Your task to perform on an android device: What's on my calendar today? Image 0: 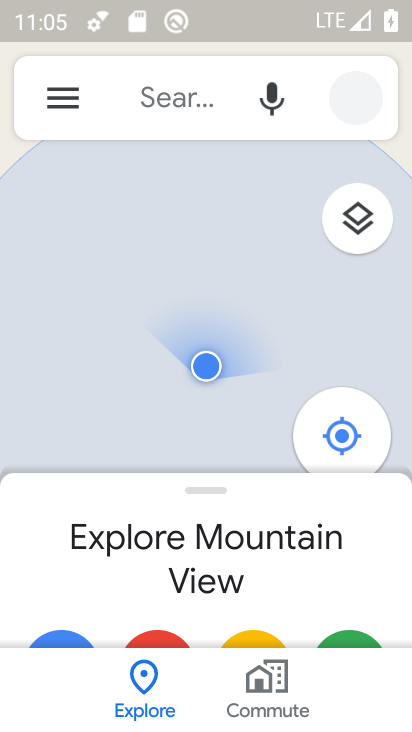
Step 0: press home button
Your task to perform on an android device: What's on my calendar today? Image 1: 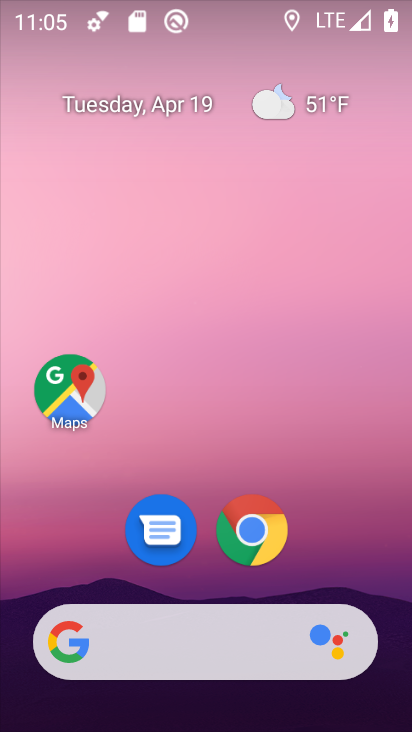
Step 1: drag from (155, 650) to (301, 204)
Your task to perform on an android device: What's on my calendar today? Image 2: 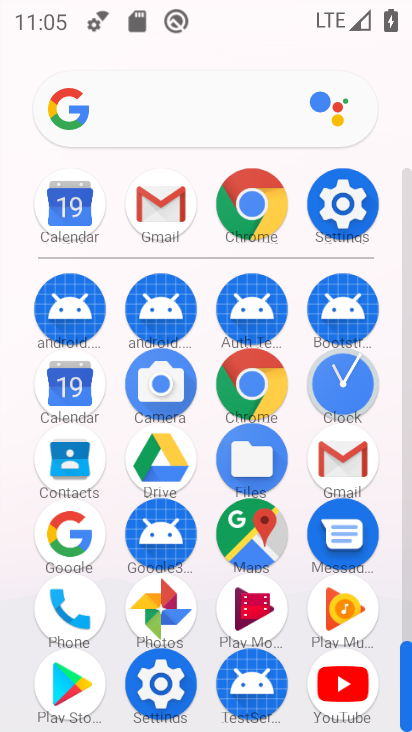
Step 2: click (67, 393)
Your task to perform on an android device: What's on my calendar today? Image 3: 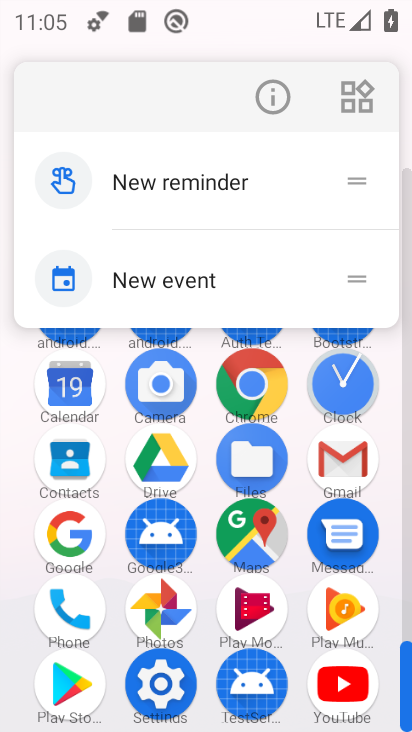
Step 3: click (67, 392)
Your task to perform on an android device: What's on my calendar today? Image 4: 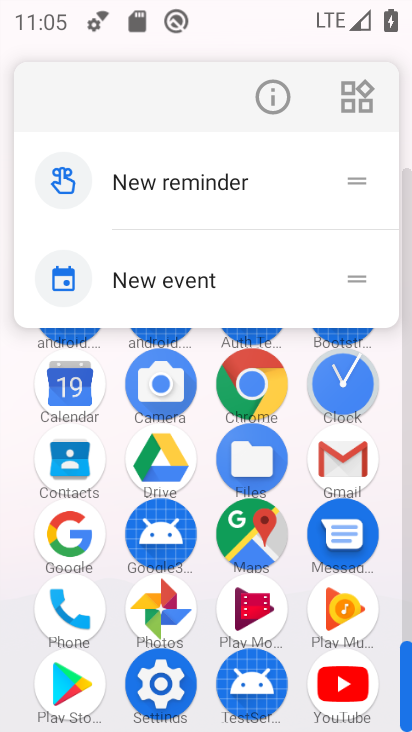
Step 4: click (75, 403)
Your task to perform on an android device: What's on my calendar today? Image 5: 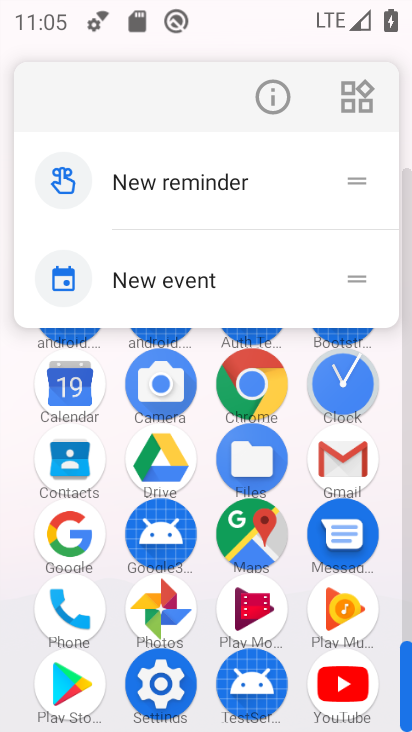
Step 5: click (72, 398)
Your task to perform on an android device: What's on my calendar today? Image 6: 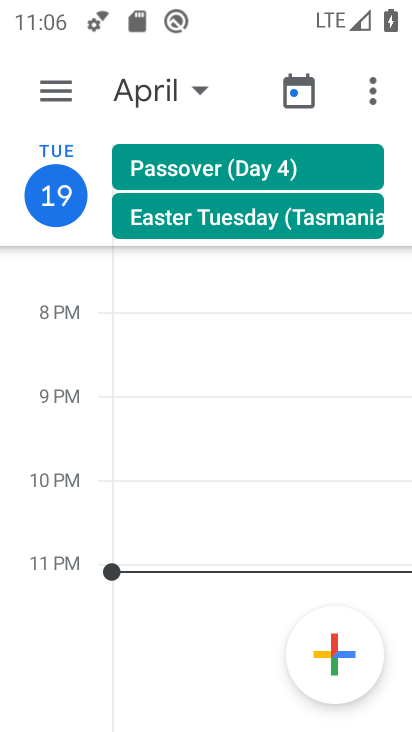
Step 6: drag from (242, 383) to (251, 577)
Your task to perform on an android device: What's on my calendar today? Image 7: 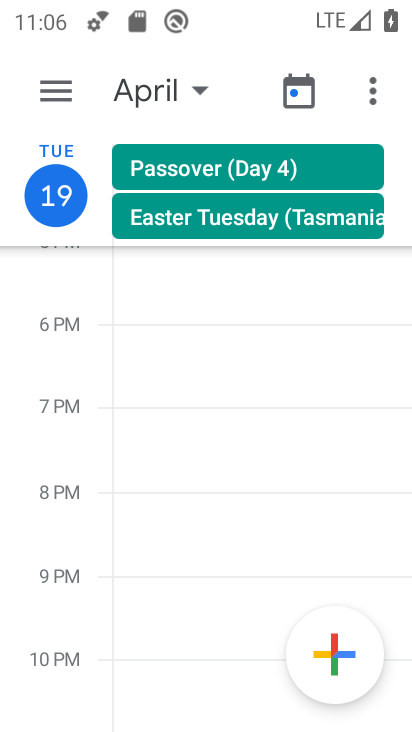
Step 7: drag from (254, 375) to (232, 597)
Your task to perform on an android device: What's on my calendar today? Image 8: 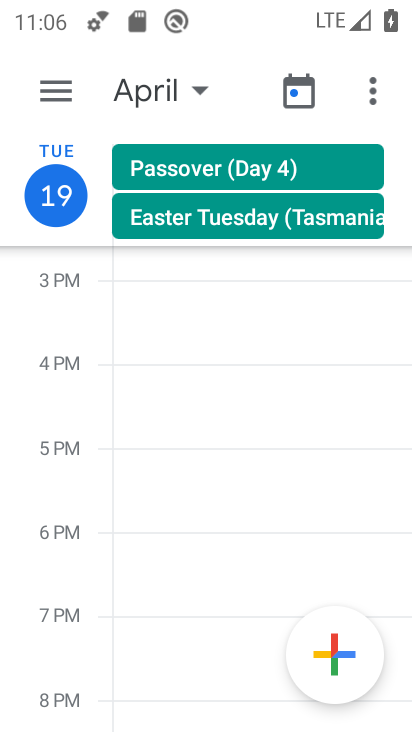
Step 8: drag from (257, 429) to (226, 680)
Your task to perform on an android device: What's on my calendar today? Image 9: 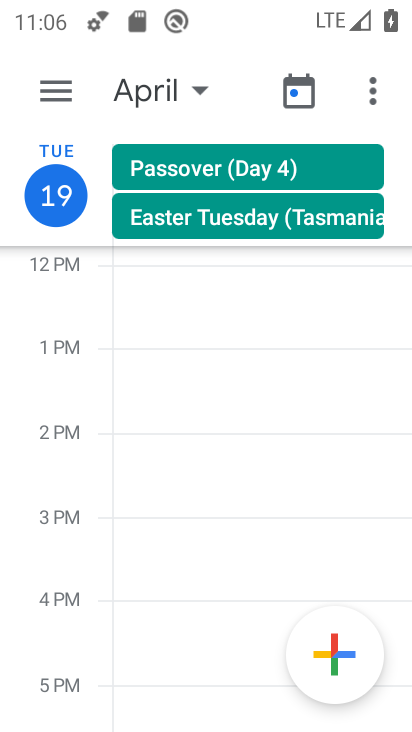
Step 9: drag from (237, 313) to (183, 637)
Your task to perform on an android device: What's on my calendar today? Image 10: 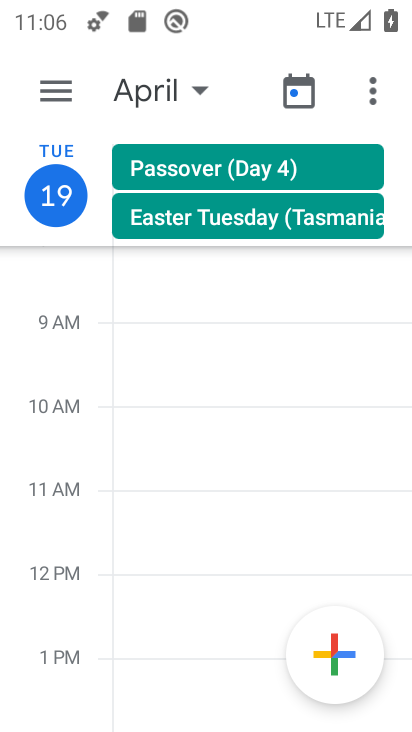
Step 10: click (63, 89)
Your task to perform on an android device: What's on my calendar today? Image 11: 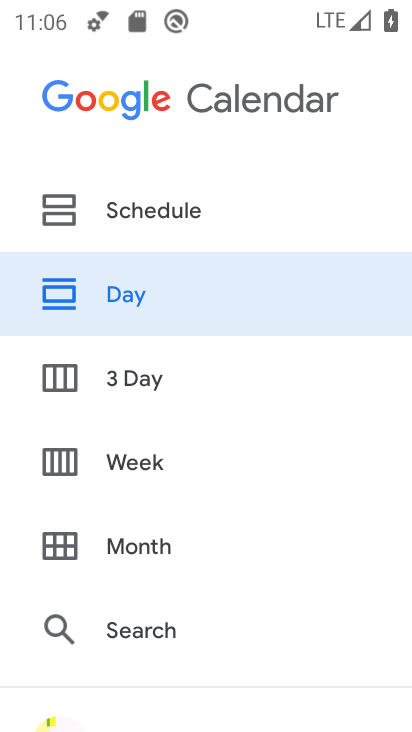
Step 11: click (148, 218)
Your task to perform on an android device: What's on my calendar today? Image 12: 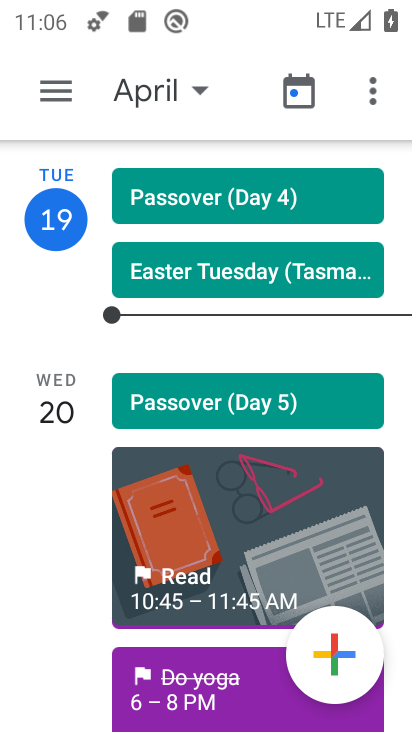
Step 12: click (247, 199)
Your task to perform on an android device: What's on my calendar today? Image 13: 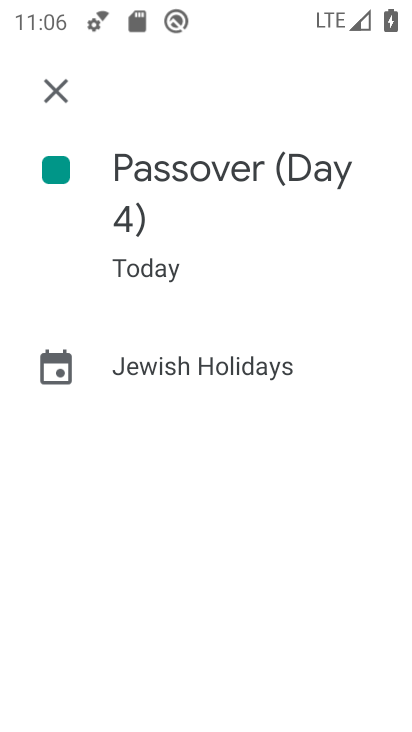
Step 13: task complete